Your task to perform on an android device: change the clock style Image 0: 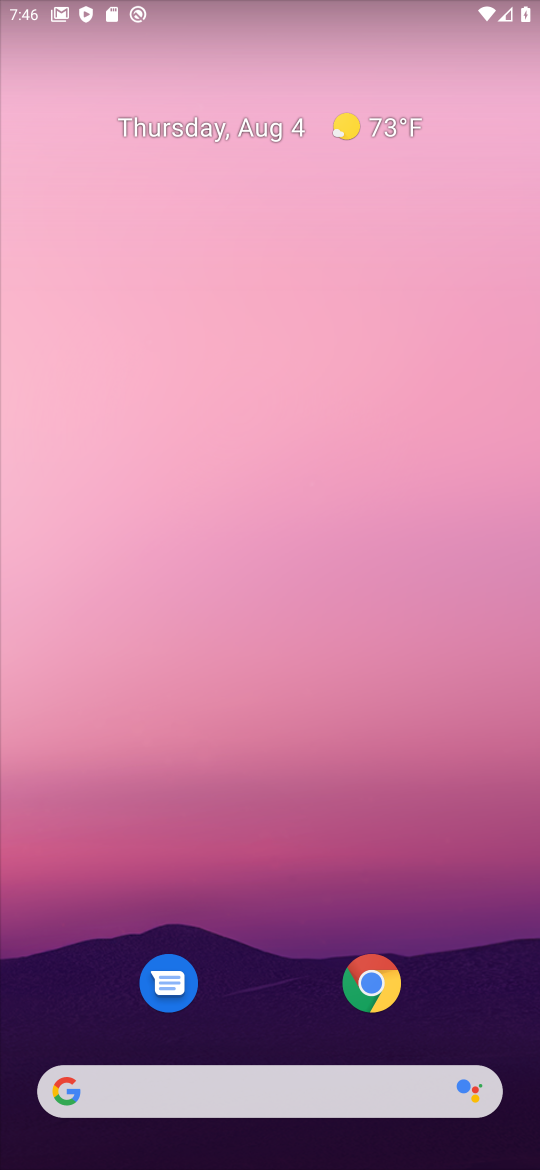
Step 0: drag from (290, 998) to (335, 210)
Your task to perform on an android device: change the clock style Image 1: 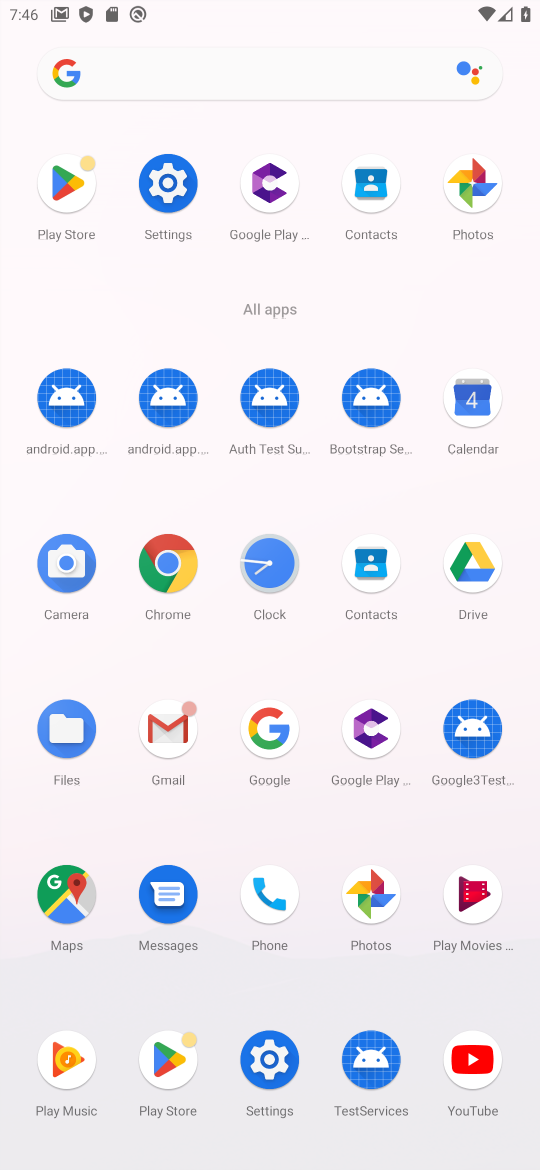
Step 1: click (275, 580)
Your task to perform on an android device: change the clock style Image 2: 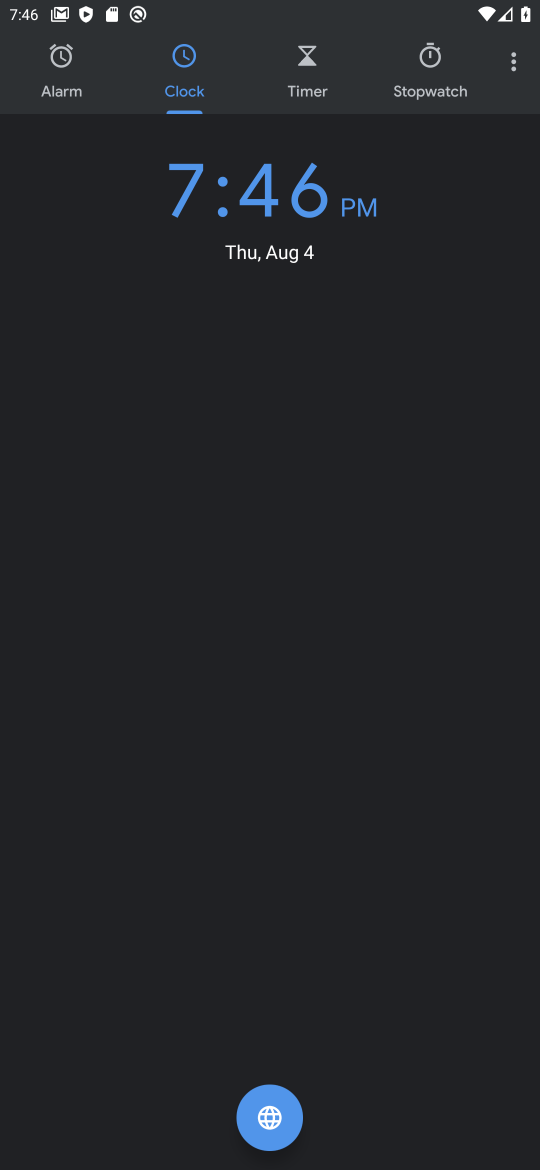
Step 2: click (511, 66)
Your task to perform on an android device: change the clock style Image 3: 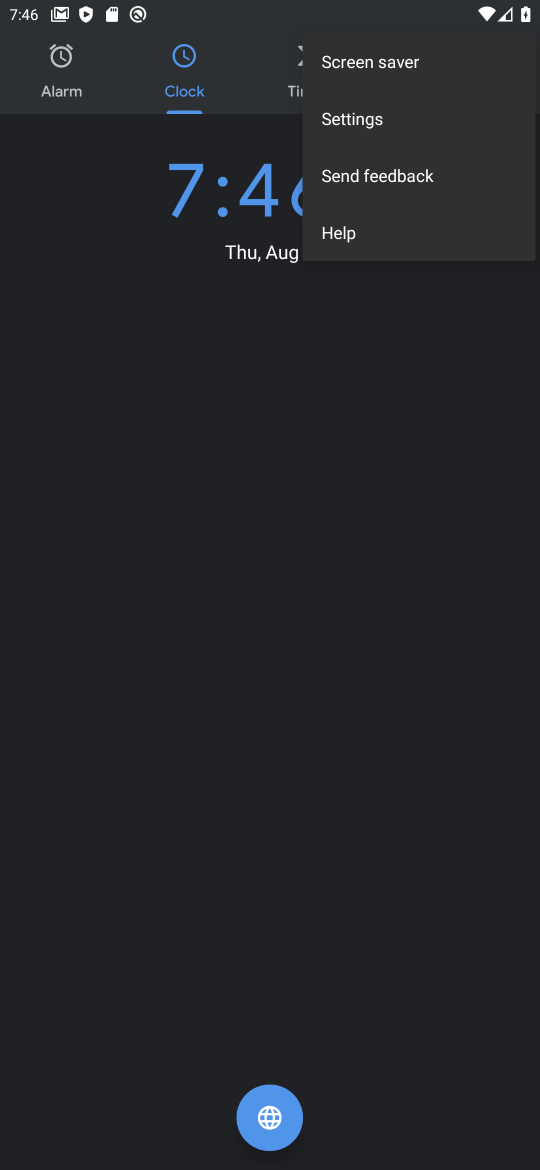
Step 3: click (478, 113)
Your task to perform on an android device: change the clock style Image 4: 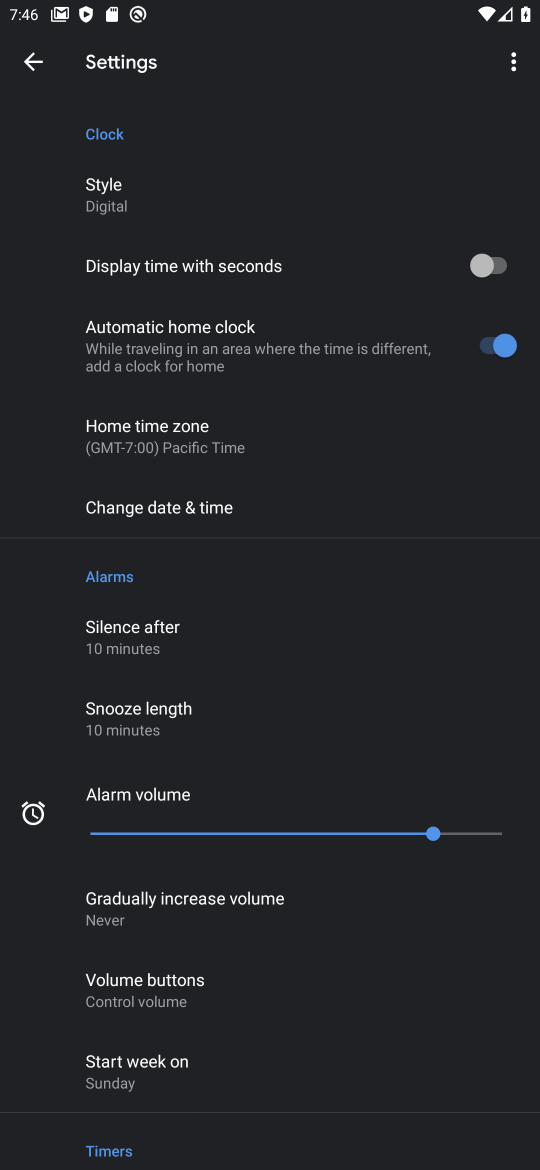
Step 4: click (138, 199)
Your task to perform on an android device: change the clock style Image 5: 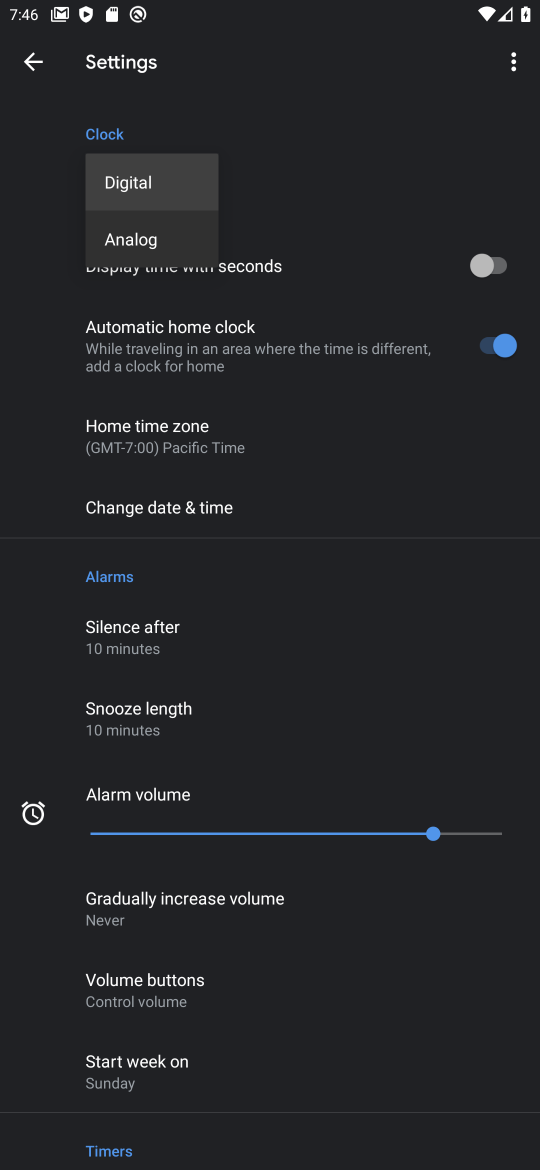
Step 5: click (135, 243)
Your task to perform on an android device: change the clock style Image 6: 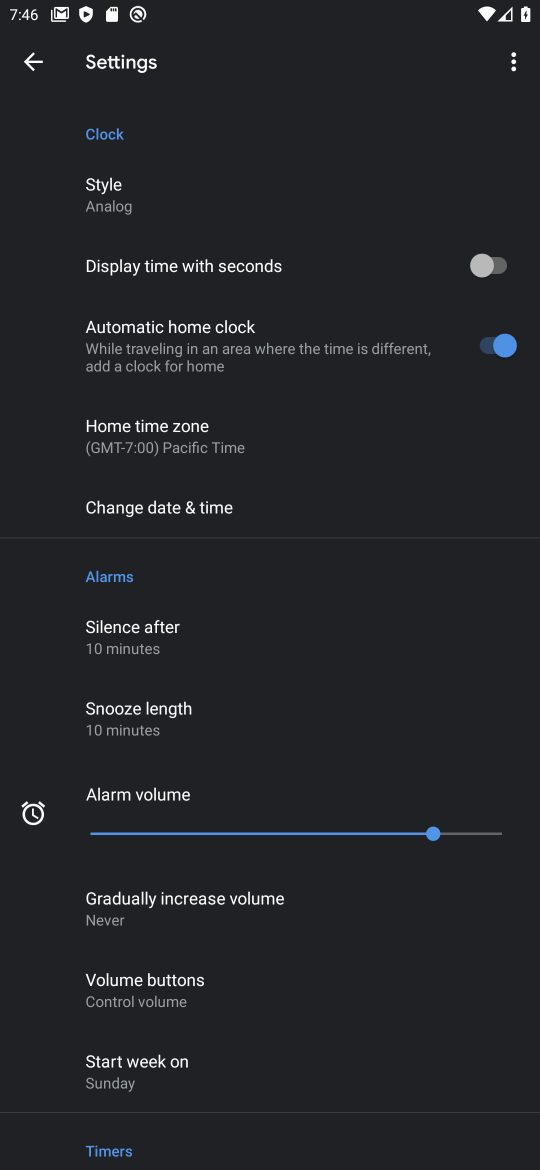
Step 6: task complete